Your task to perform on an android device: turn off priority inbox in the gmail app Image 0: 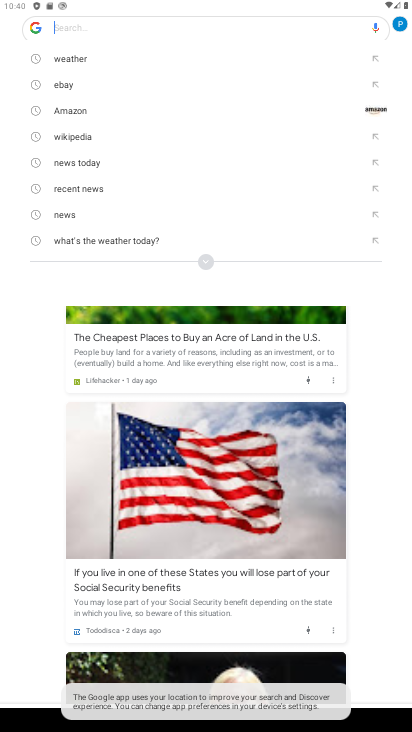
Step 0: press home button
Your task to perform on an android device: turn off priority inbox in the gmail app Image 1: 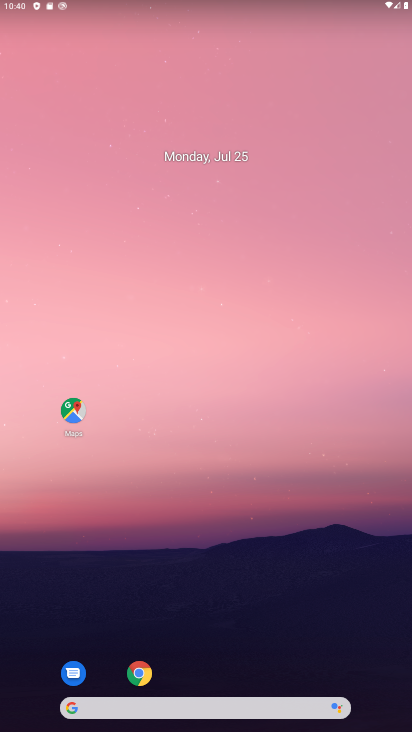
Step 1: drag from (276, 638) to (269, 1)
Your task to perform on an android device: turn off priority inbox in the gmail app Image 2: 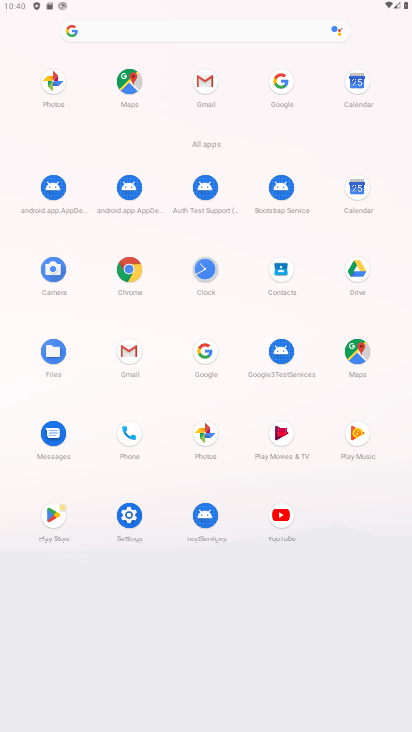
Step 2: click (122, 353)
Your task to perform on an android device: turn off priority inbox in the gmail app Image 3: 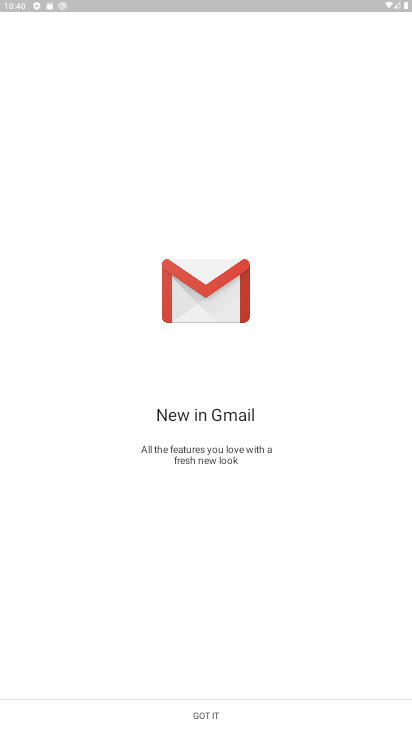
Step 3: click (324, 721)
Your task to perform on an android device: turn off priority inbox in the gmail app Image 4: 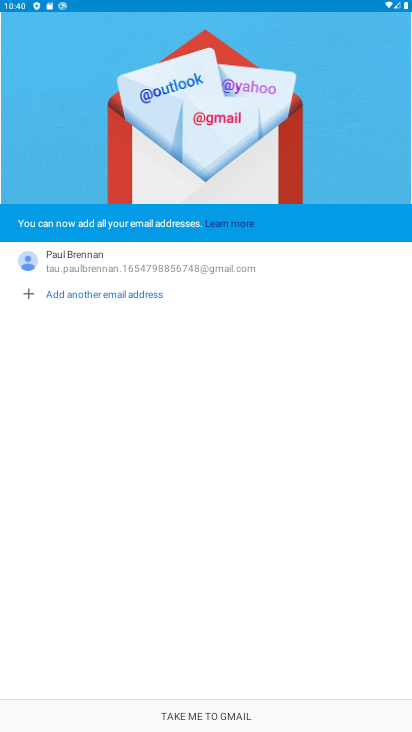
Step 4: click (330, 706)
Your task to perform on an android device: turn off priority inbox in the gmail app Image 5: 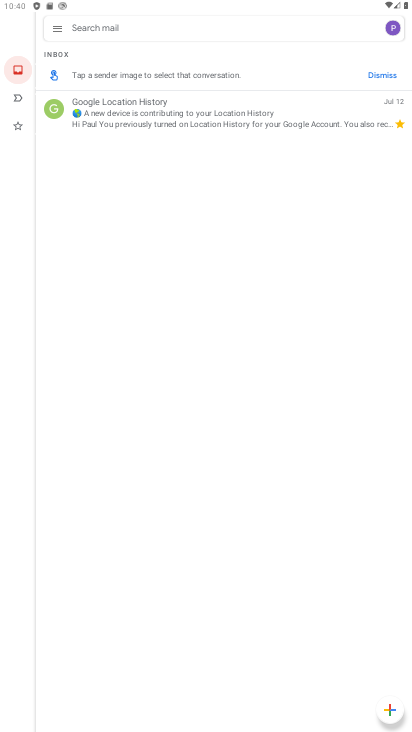
Step 5: click (54, 31)
Your task to perform on an android device: turn off priority inbox in the gmail app Image 6: 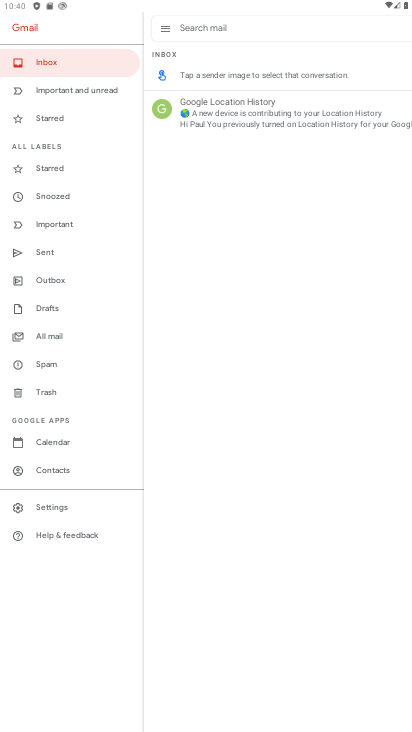
Step 6: click (68, 502)
Your task to perform on an android device: turn off priority inbox in the gmail app Image 7: 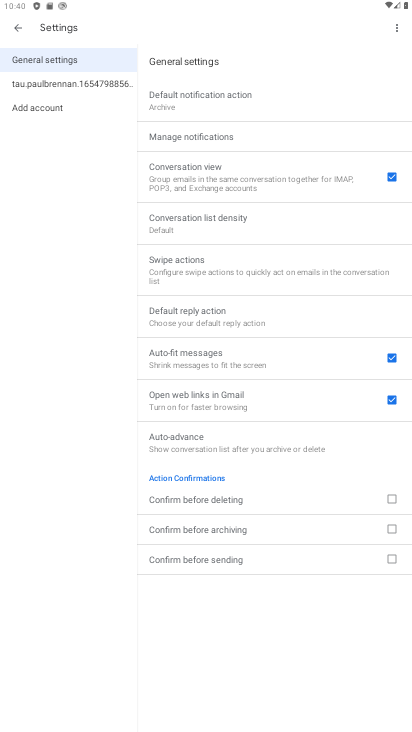
Step 7: click (79, 82)
Your task to perform on an android device: turn off priority inbox in the gmail app Image 8: 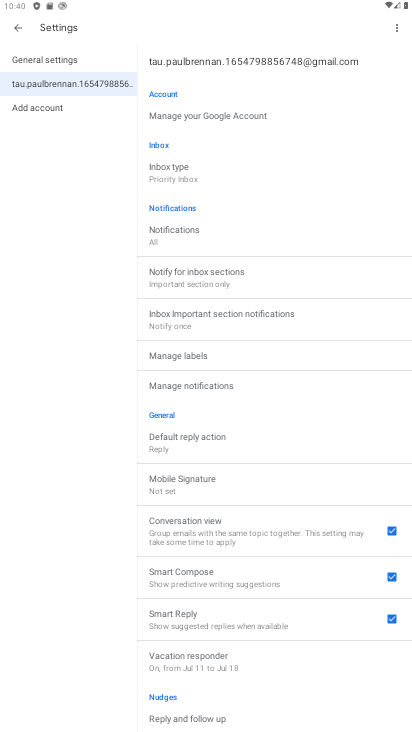
Step 8: click (183, 171)
Your task to perform on an android device: turn off priority inbox in the gmail app Image 9: 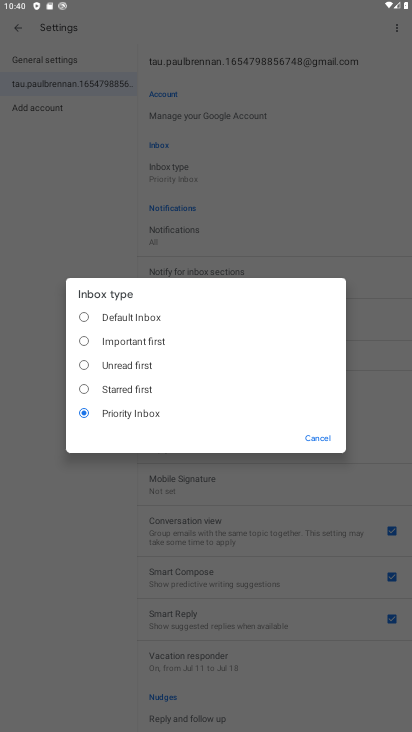
Step 9: click (157, 312)
Your task to perform on an android device: turn off priority inbox in the gmail app Image 10: 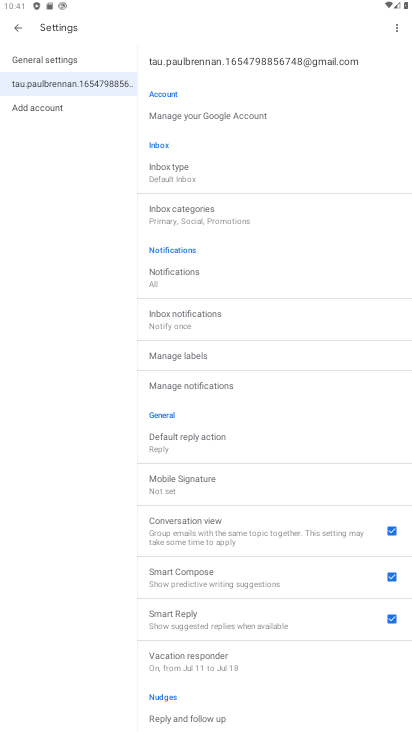
Step 10: task complete